Your task to perform on an android device: Check the weather Image 0: 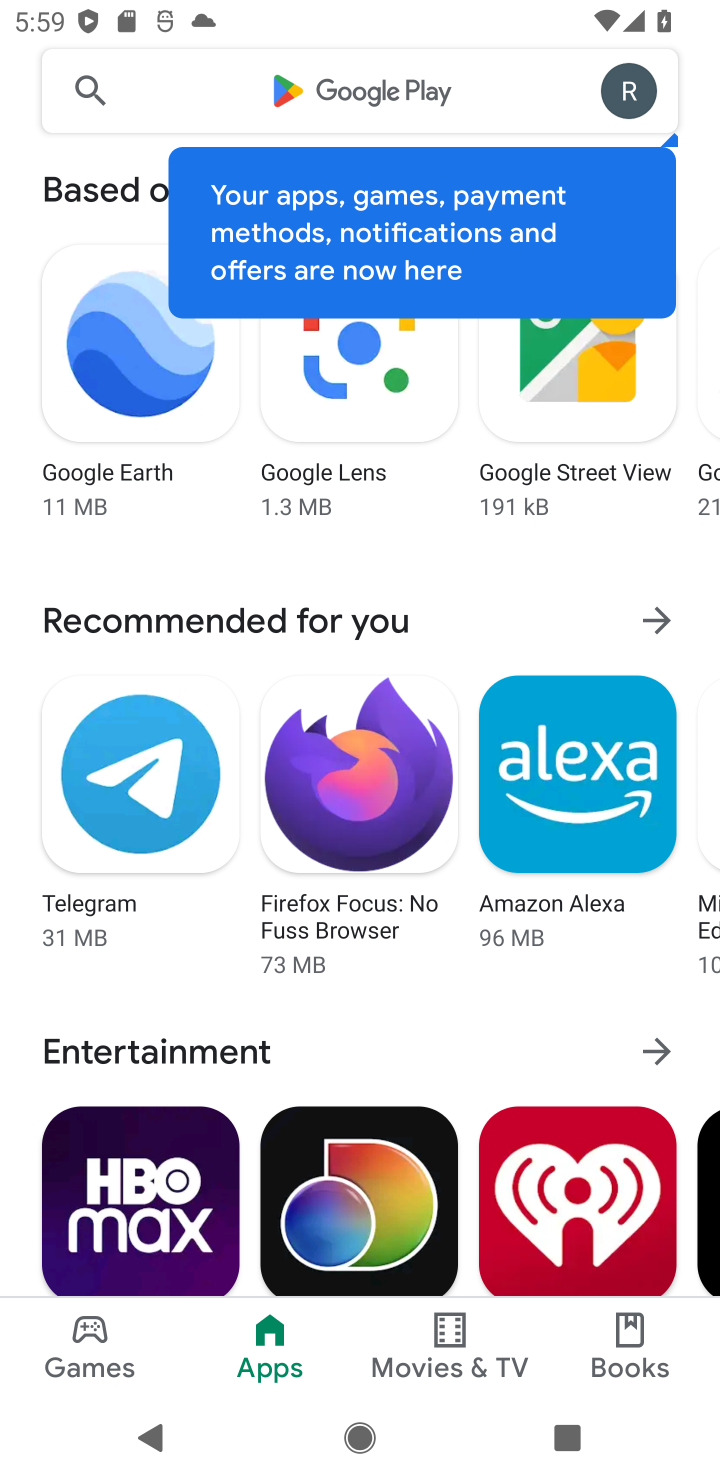
Step 0: press home button
Your task to perform on an android device: Check the weather Image 1: 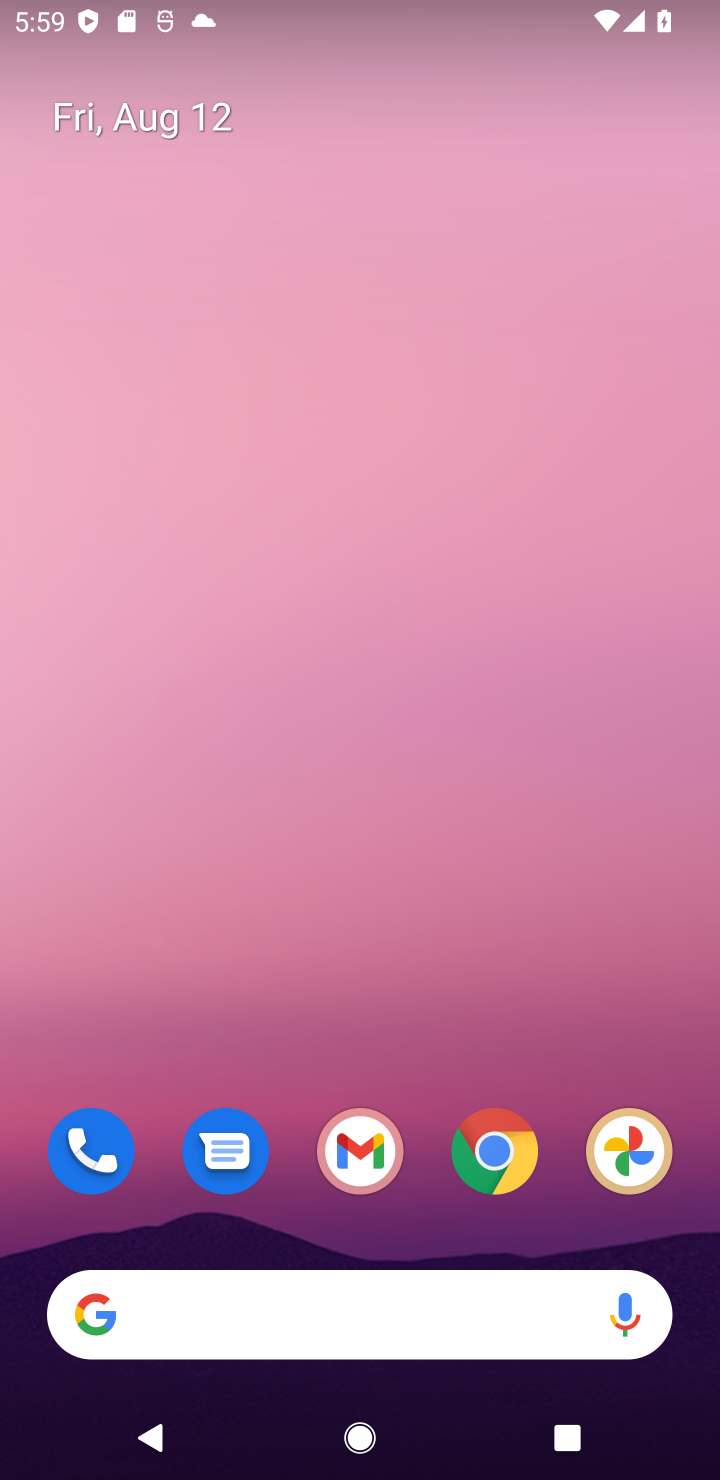
Step 1: drag from (464, 1064) to (203, 94)
Your task to perform on an android device: Check the weather Image 2: 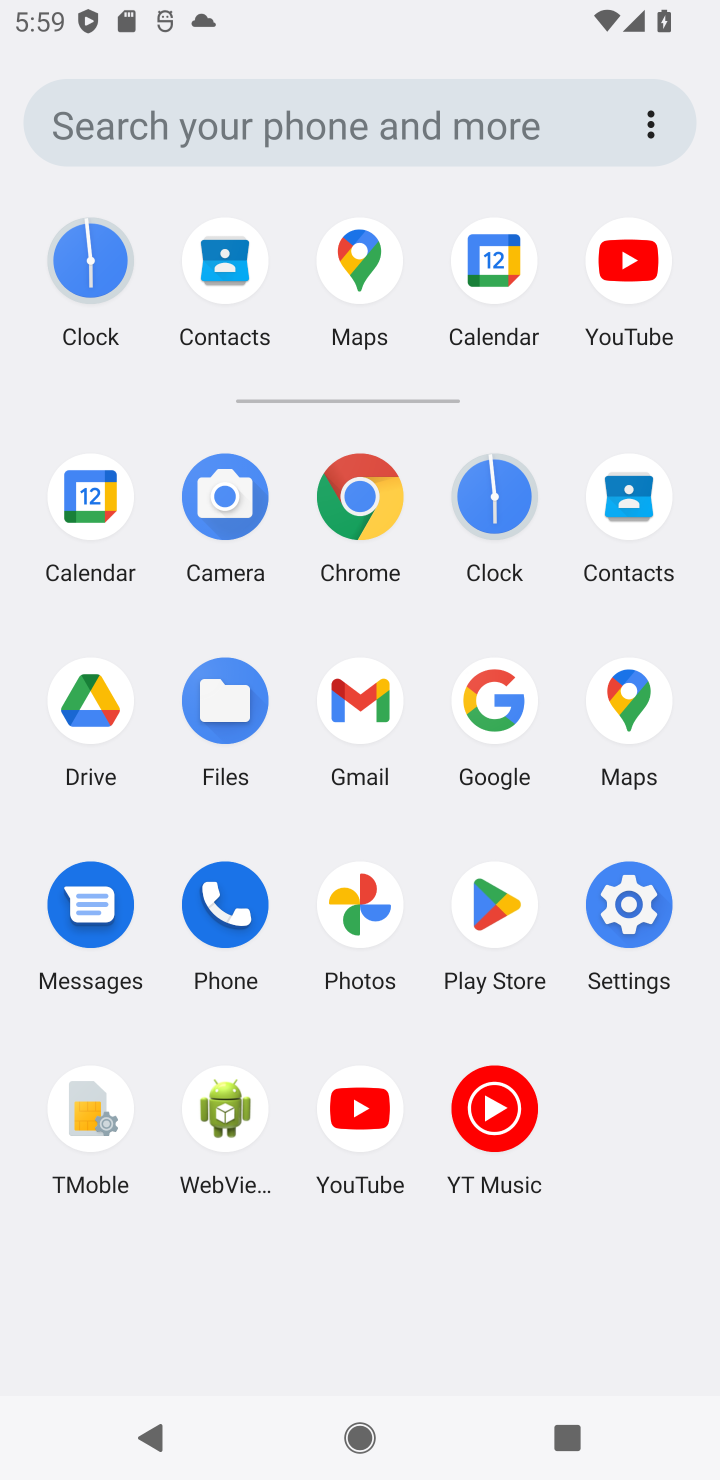
Step 2: click (368, 516)
Your task to perform on an android device: Check the weather Image 3: 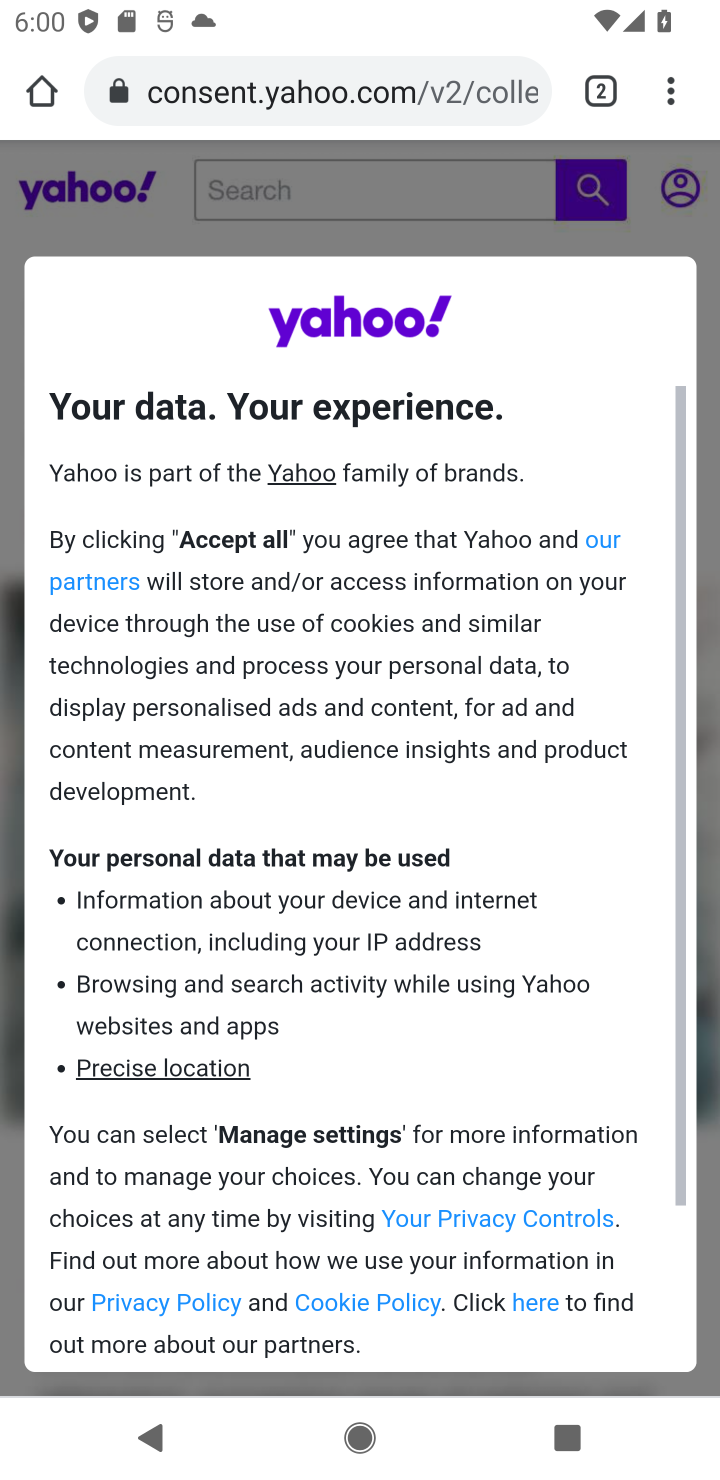
Step 3: click (470, 98)
Your task to perform on an android device: Check the weather Image 4: 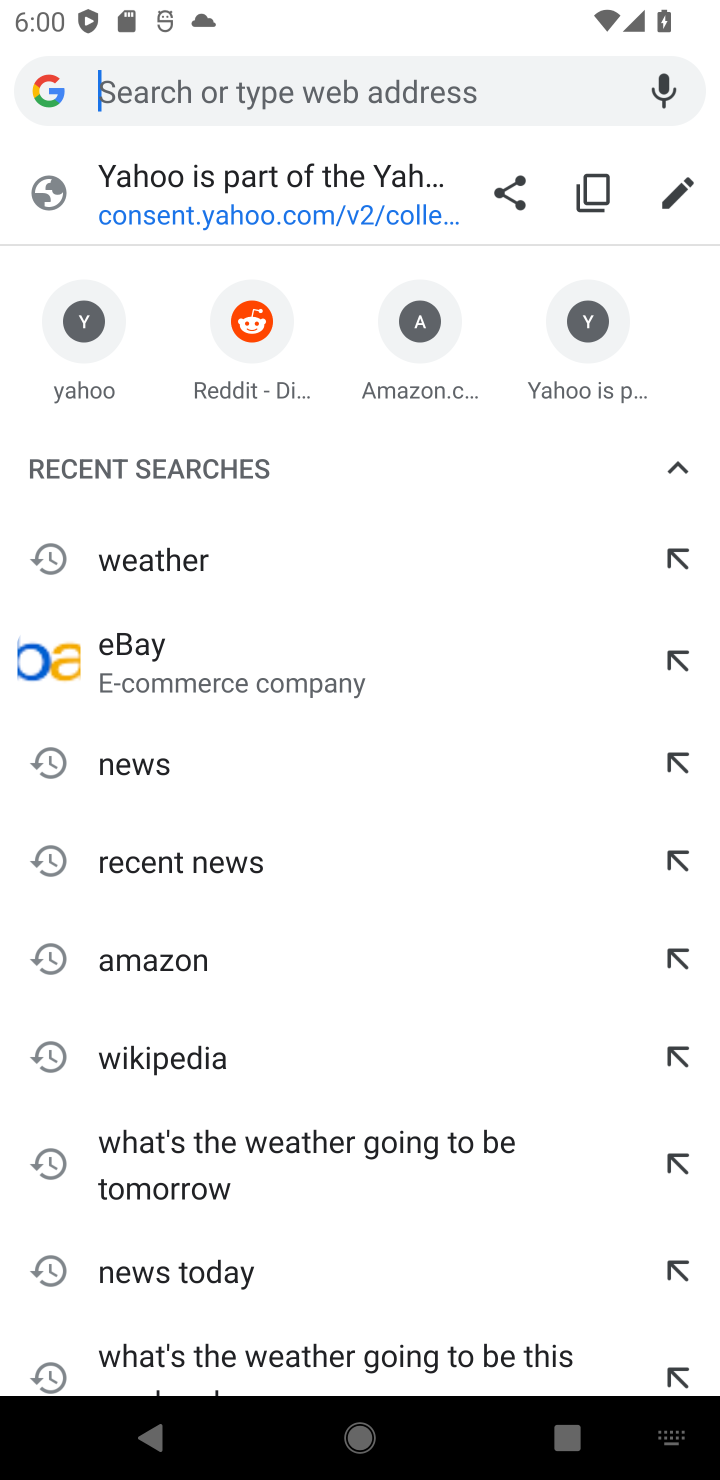
Step 4: click (188, 554)
Your task to perform on an android device: Check the weather Image 5: 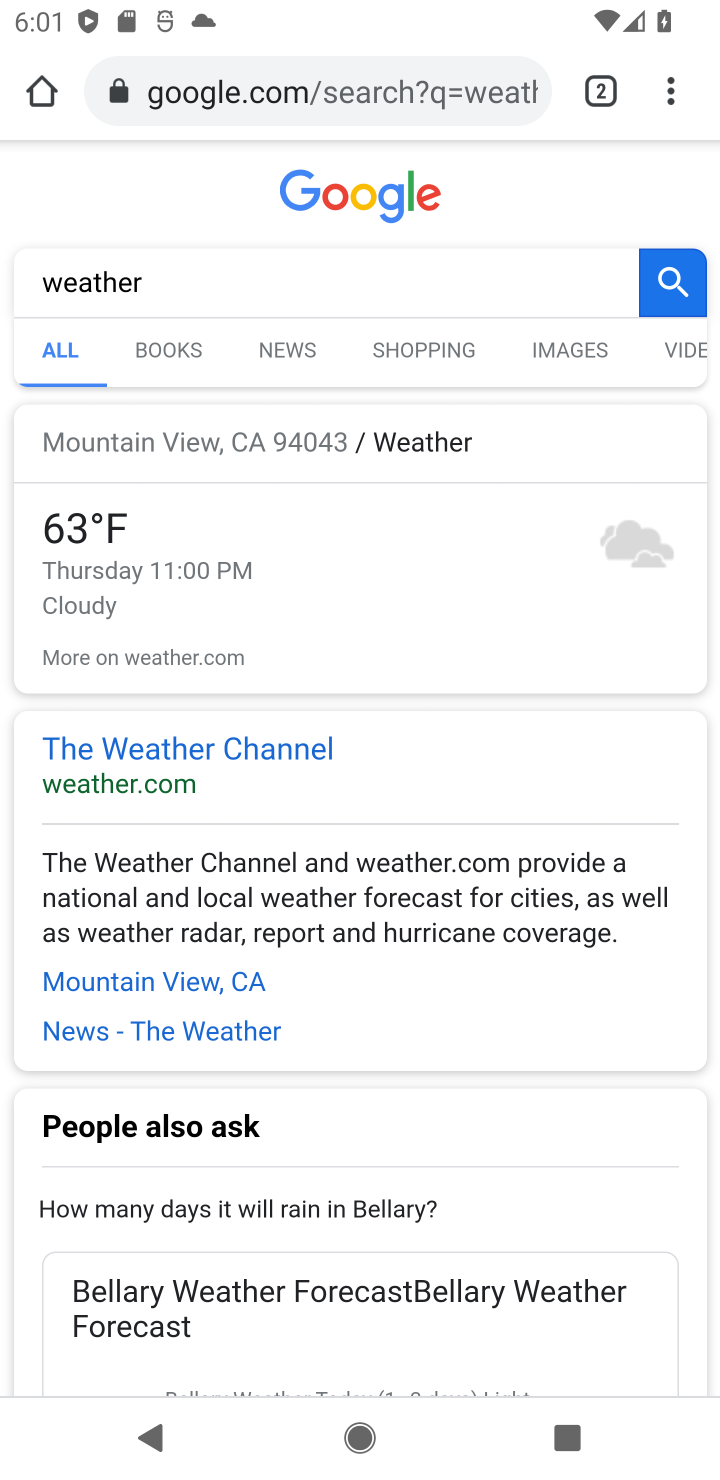
Step 5: click (297, 573)
Your task to perform on an android device: Check the weather Image 6: 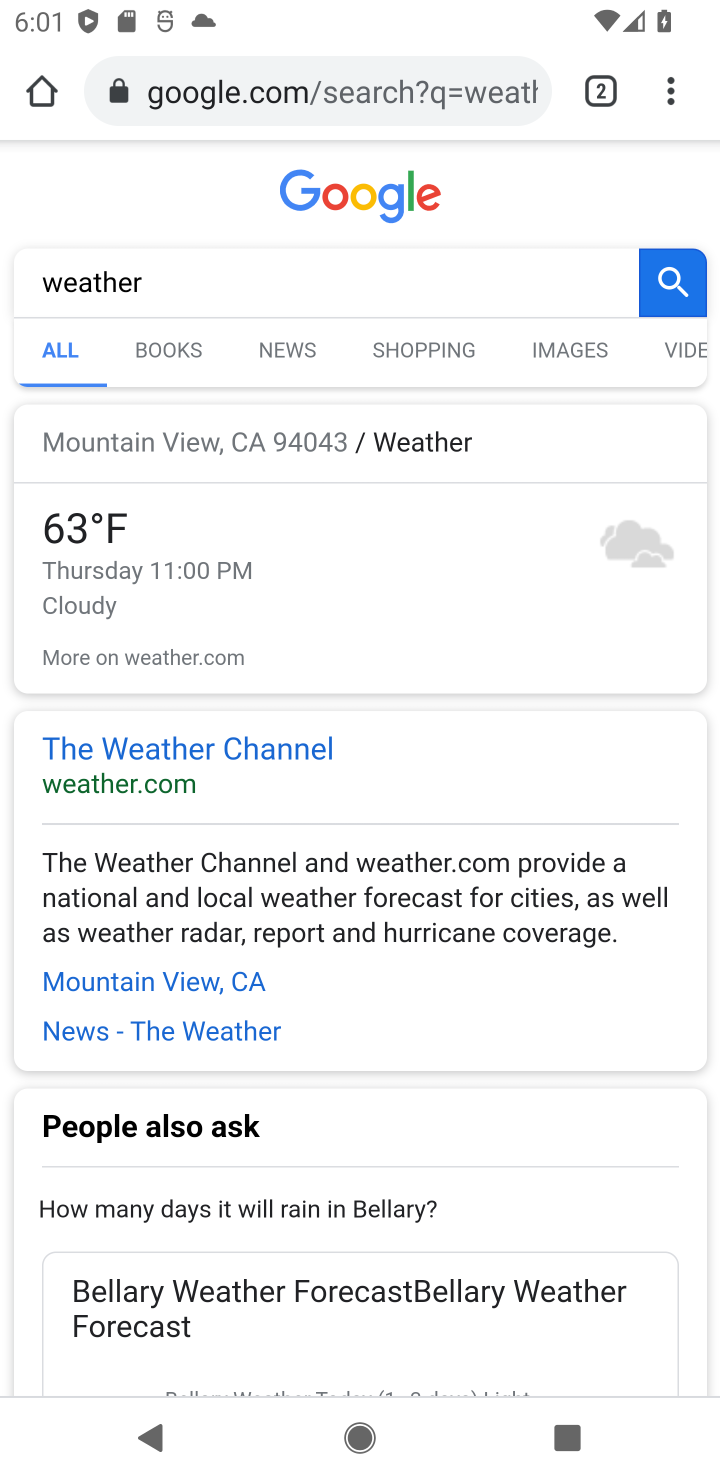
Step 6: task complete